Your task to perform on an android device: Open privacy settings Image 0: 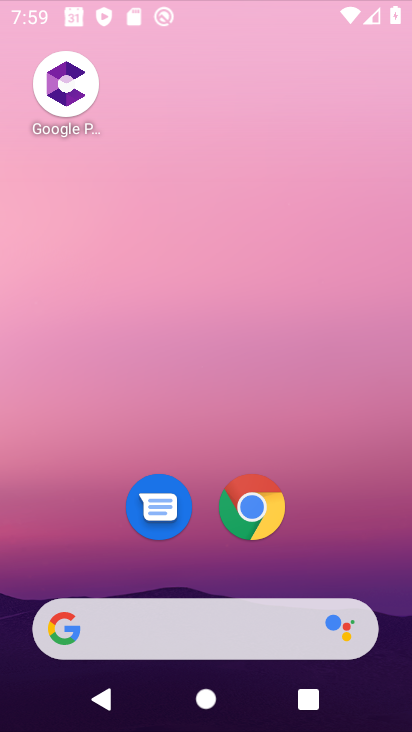
Step 0: drag from (193, 556) to (27, 35)
Your task to perform on an android device: Open privacy settings Image 1: 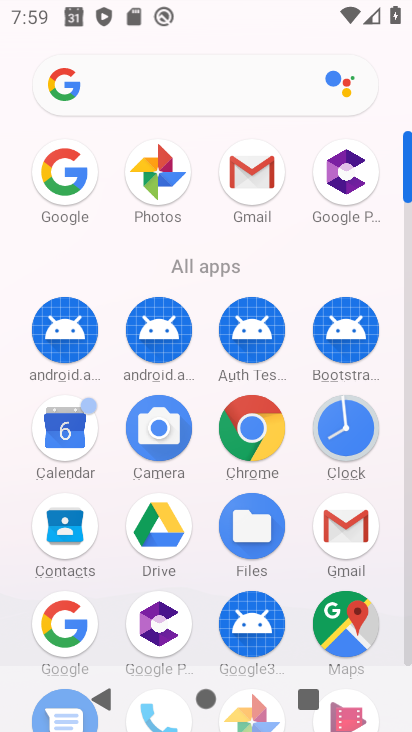
Step 1: drag from (203, 643) to (215, 467)
Your task to perform on an android device: Open privacy settings Image 2: 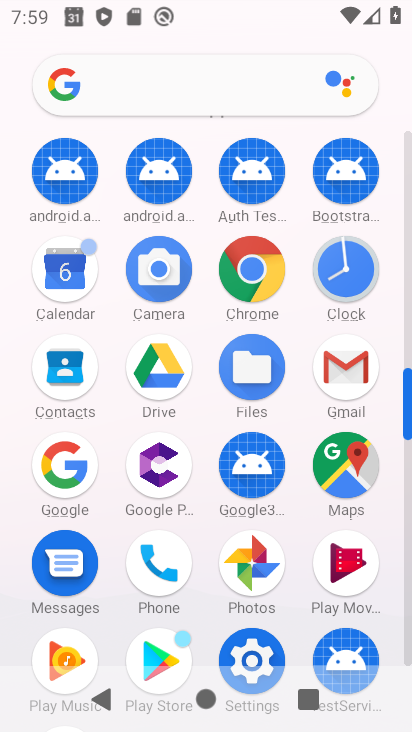
Step 2: drag from (203, 550) to (224, 280)
Your task to perform on an android device: Open privacy settings Image 3: 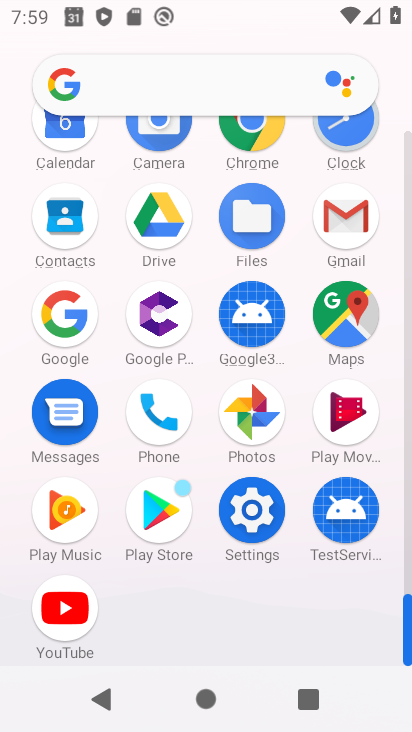
Step 3: click (253, 508)
Your task to perform on an android device: Open privacy settings Image 4: 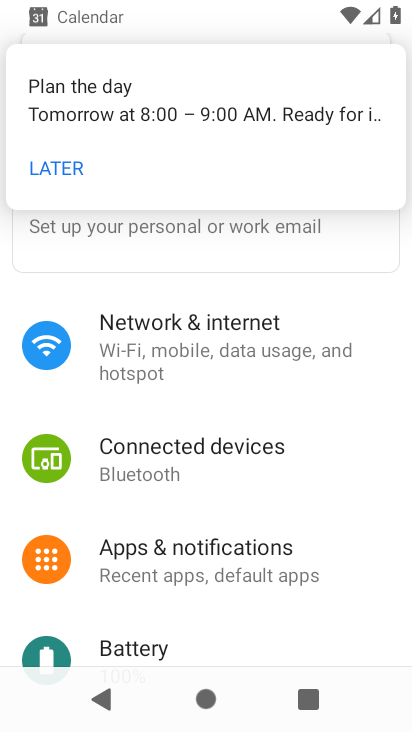
Step 4: click (60, 166)
Your task to perform on an android device: Open privacy settings Image 5: 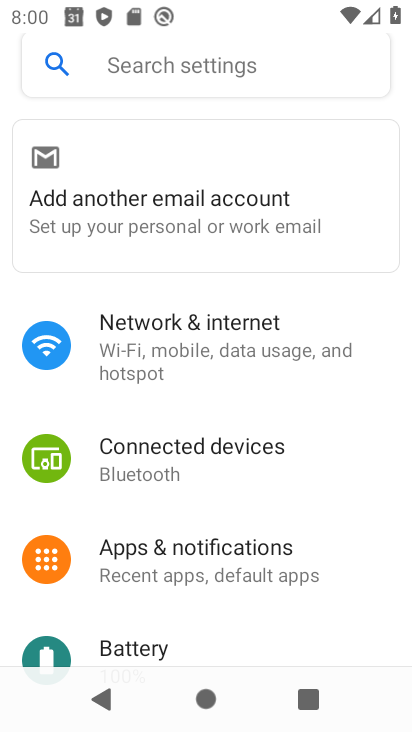
Step 5: drag from (212, 543) to (212, 395)
Your task to perform on an android device: Open privacy settings Image 6: 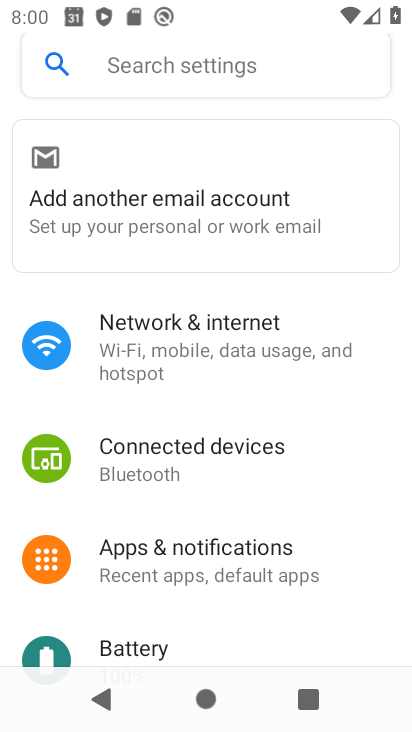
Step 6: drag from (210, 572) to (250, 172)
Your task to perform on an android device: Open privacy settings Image 7: 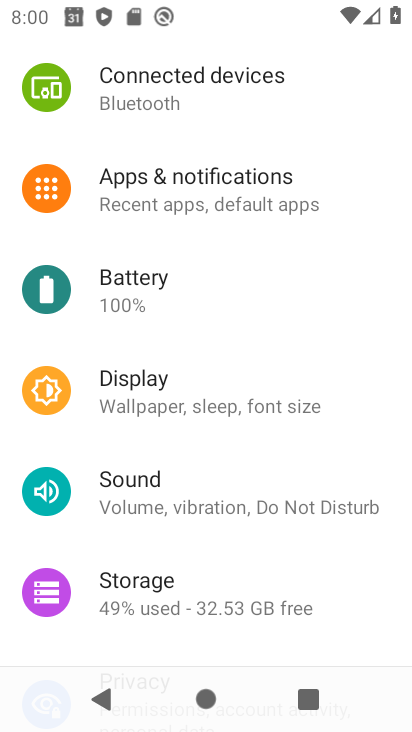
Step 7: drag from (190, 506) to (211, 279)
Your task to perform on an android device: Open privacy settings Image 8: 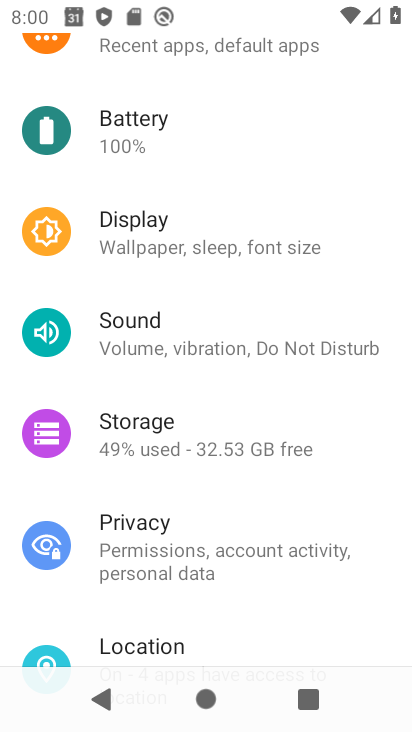
Step 8: click (146, 545)
Your task to perform on an android device: Open privacy settings Image 9: 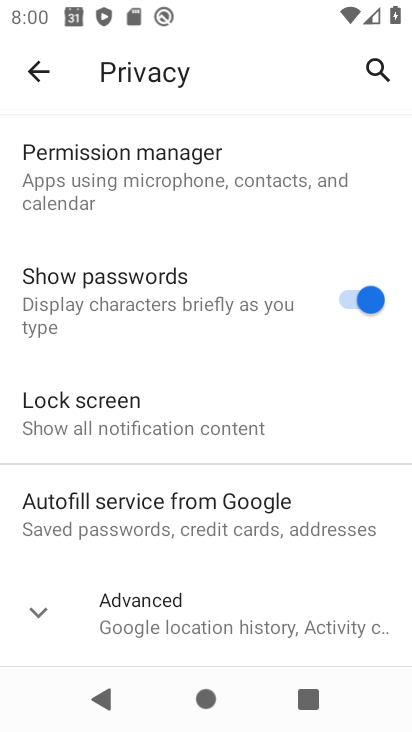
Step 9: task complete